Your task to perform on an android device: allow cookies in the chrome app Image 0: 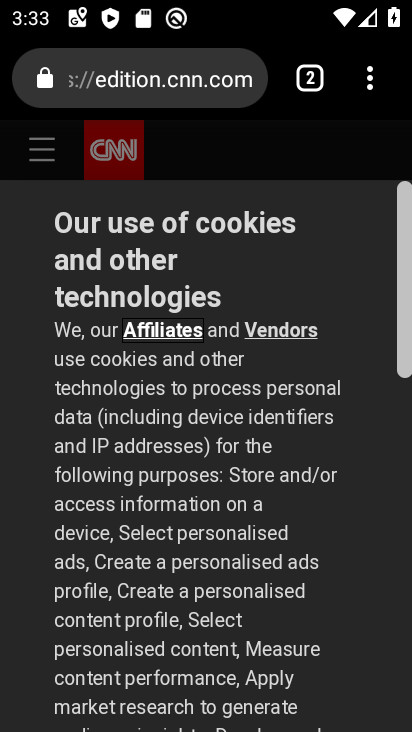
Step 0: press home button
Your task to perform on an android device: allow cookies in the chrome app Image 1: 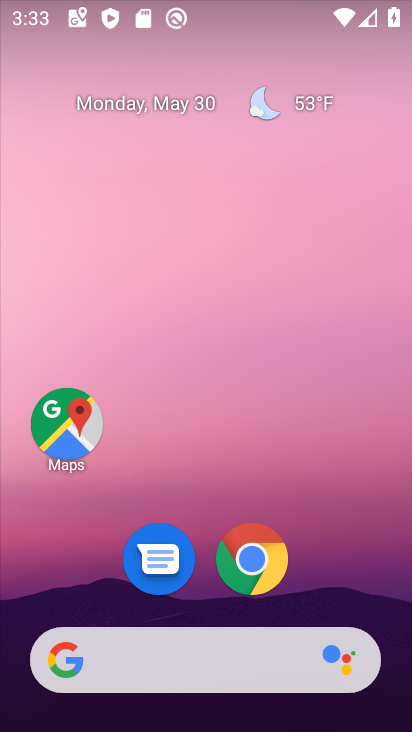
Step 1: click (253, 559)
Your task to perform on an android device: allow cookies in the chrome app Image 2: 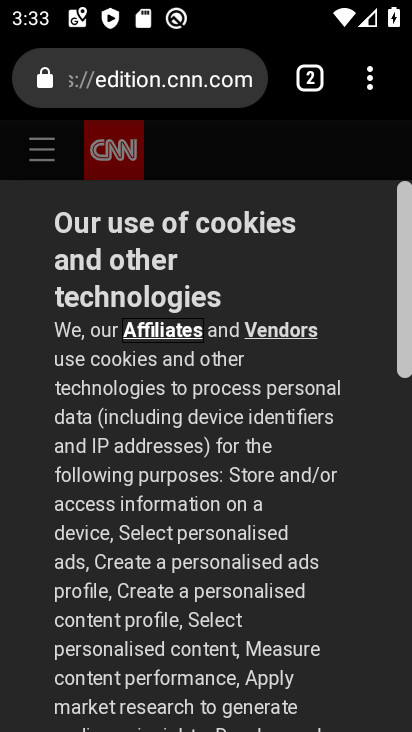
Step 2: click (370, 87)
Your task to perform on an android device: allow cookies in the chrome app Image 3: 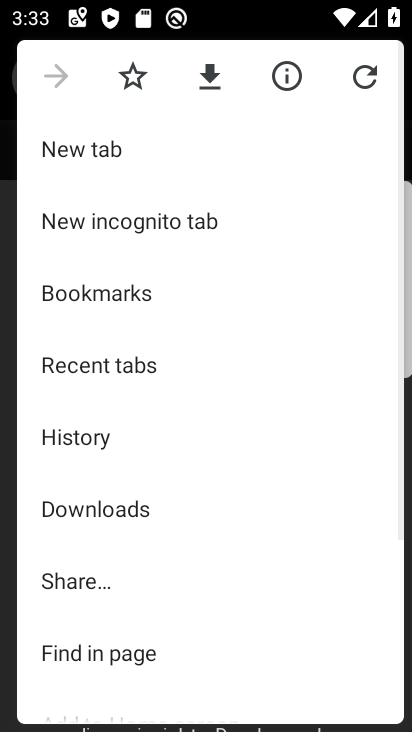
Step 3: drag from (144, 676) to (133, 246)
Your task to perform on an android device: allow cookies in the chrome app Image 4: 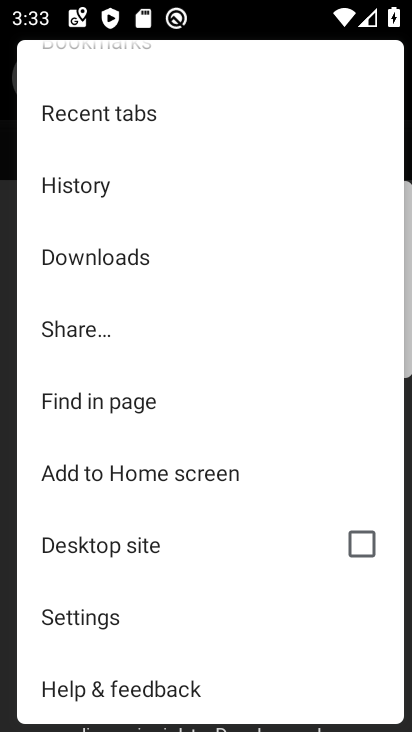
Step 4: click (88, 617)
Your task to perform on an android device: allow cookies in the chrome app Image 5: 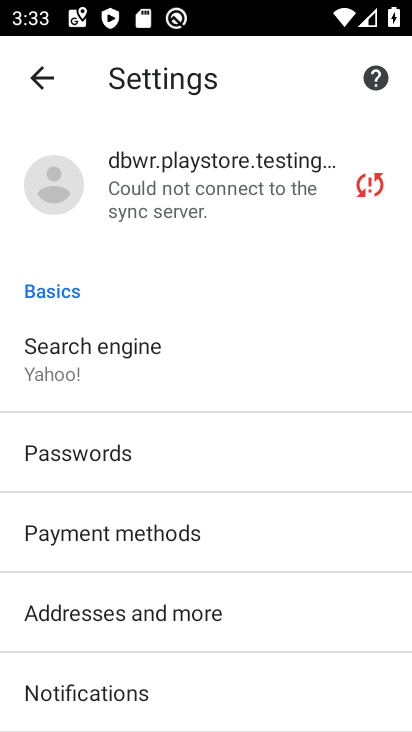
Step 5: drag from (135, 706) to (132, 221)
Your task to perform on an android device: allow cookies in the chrome app Image 6: 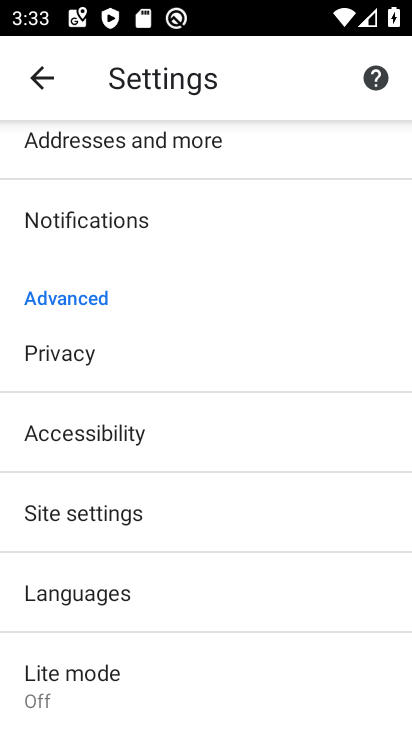
Step 6: click (102, 517)
Your task to perform on an android device: allow cookies in the chrome app Image 7: 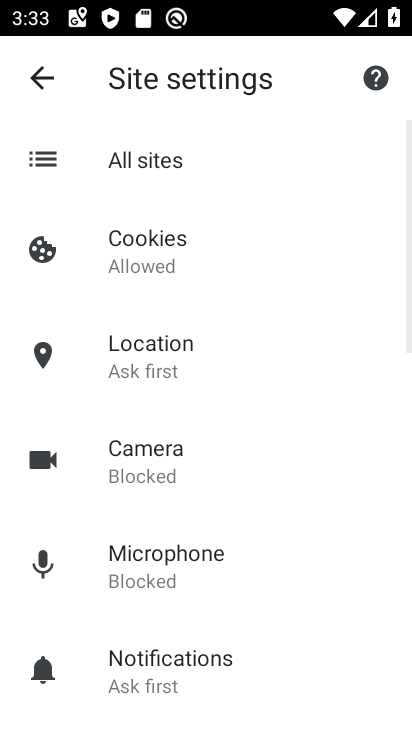
Step 7: click (138, 253)
Your task to perform on an android device: allow cookies in the chrome app Image 8: 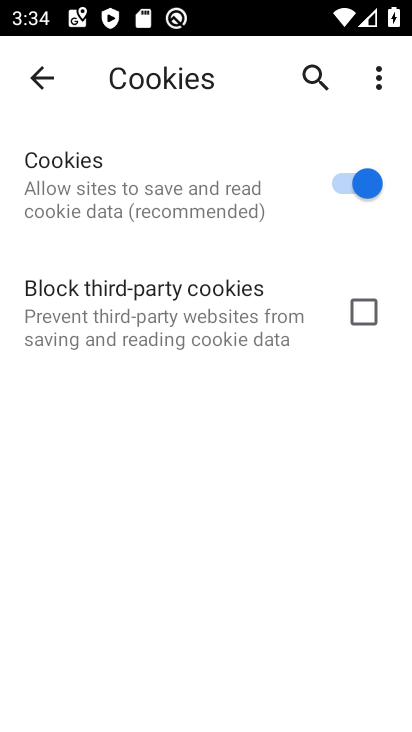
Step 8: task complete